Your task to perform on an android device: Open display settings Image 0: 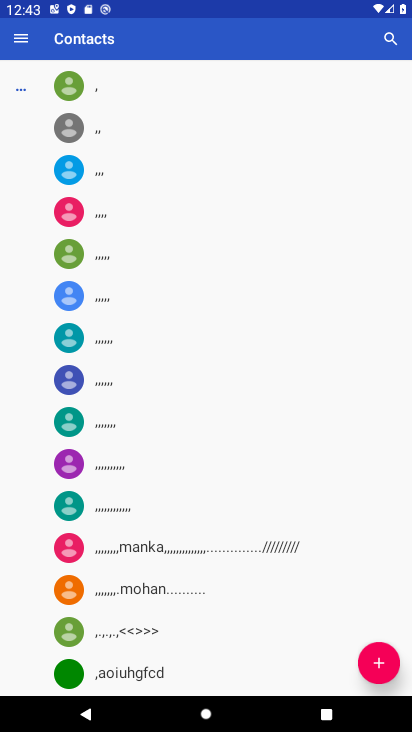
Step 0: press home button
Your task to perform on an android device: Open display settings Image 1: 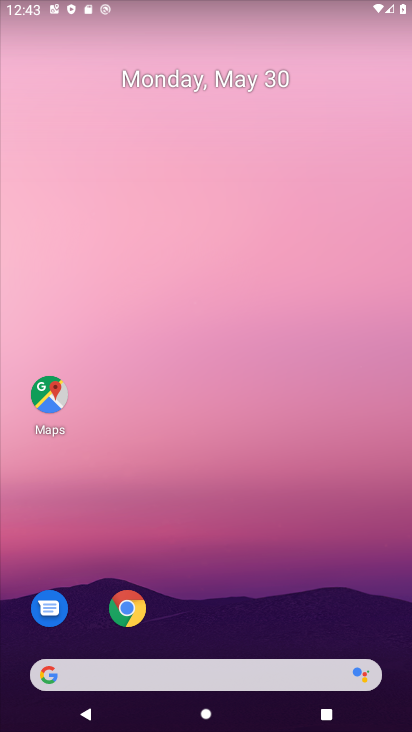
Step 1: drag from (324, 579) to (306, 78)
Your task to perform on an android device: Open display settings Image 2: 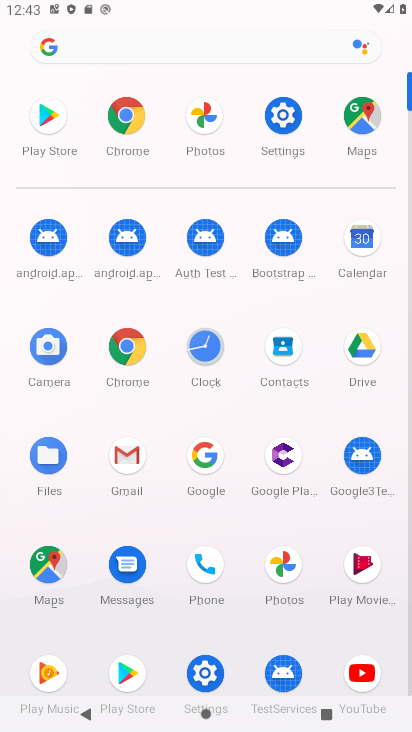
Step 2: click (294, 127)
Your task to perform on an android device: Open display settings Image 3: 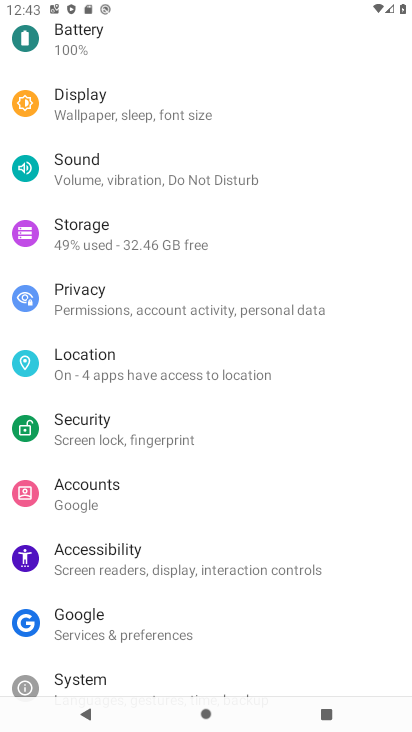
Step 3: click (236, 118)
Your task to perform on an android device: Open display settings Image 4: 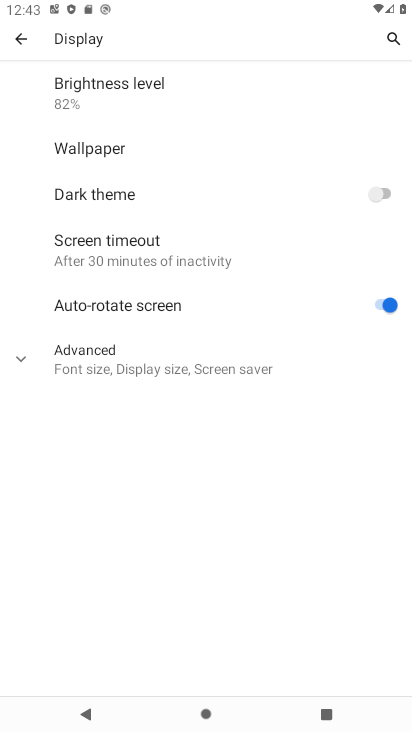
Step 4: click (258, 102)
Your task to perform on an android device: Open display settings Image 5: 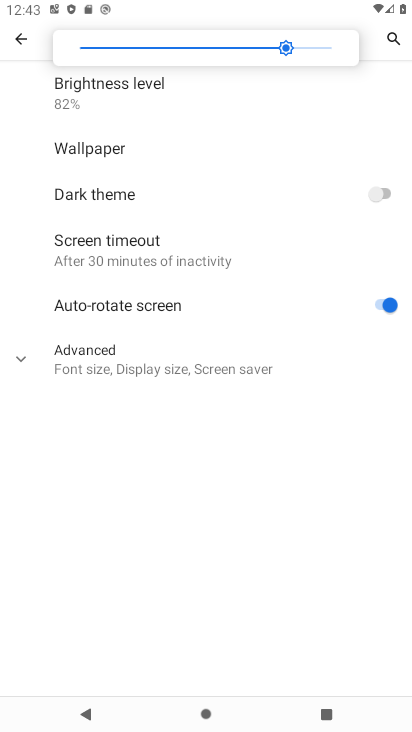
Step 5: task complete